Your task to perform on an android device: move an email to a new category in the gmail app Image 0: 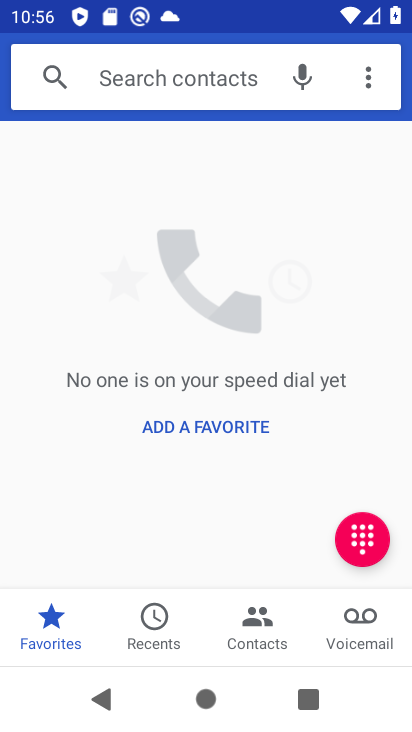
Step 0: press home button
Your task to perform on an android device: move an email to a new category in the gmail app Image 1: 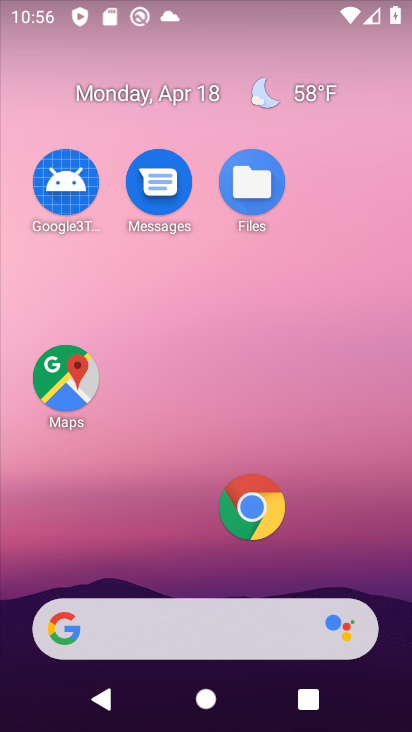
Step 1: drag from (208, 575) to (134, 21)
Your task to perform on an android device: move an email to a new category in the gmail app Image 2: 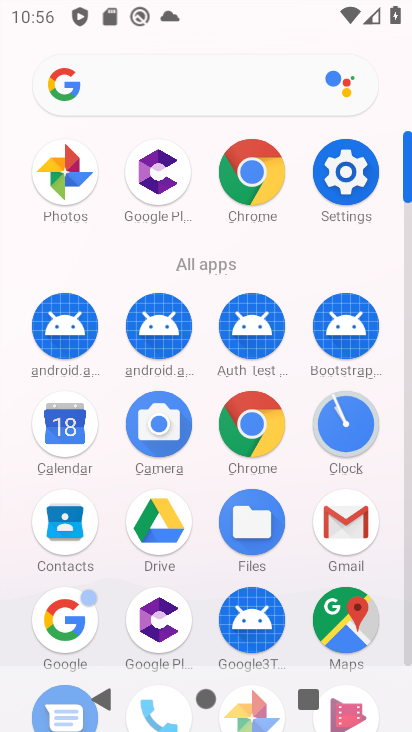
Step 2: click (345, 532)
Your task to perform on an android device: move an email to a new category in the gmail app Image 3: 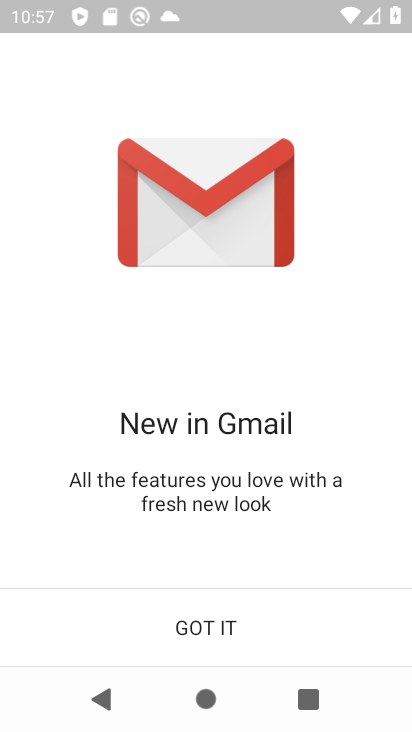
Step 3: click (193, 610)
Your task to perform on an android device: move an email to a new category in the gmail app Image 4: 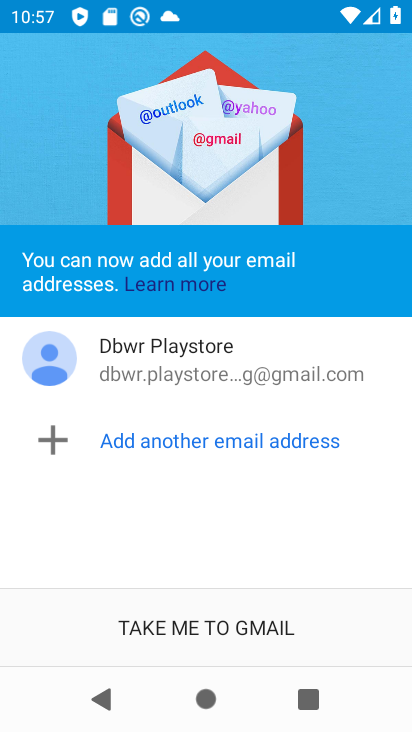
Step 4: click (198, 629)
Your task to perform on an android device: move an email to a new category in the gmail app Image 5: 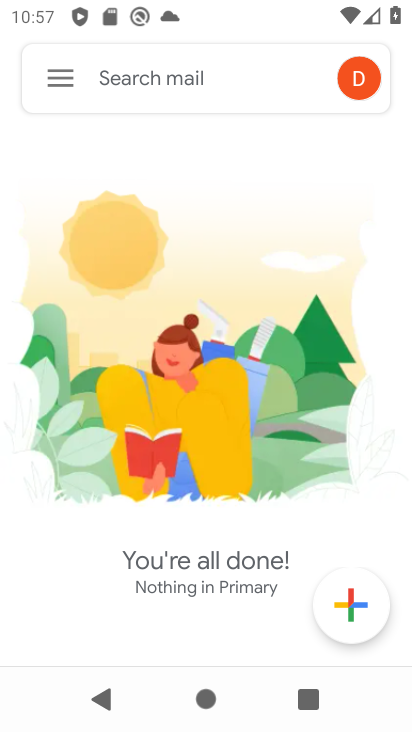
Step 5: click (59, 75)
Your task to perform on an android device: move an email to a new category in the gmail app Image 6: 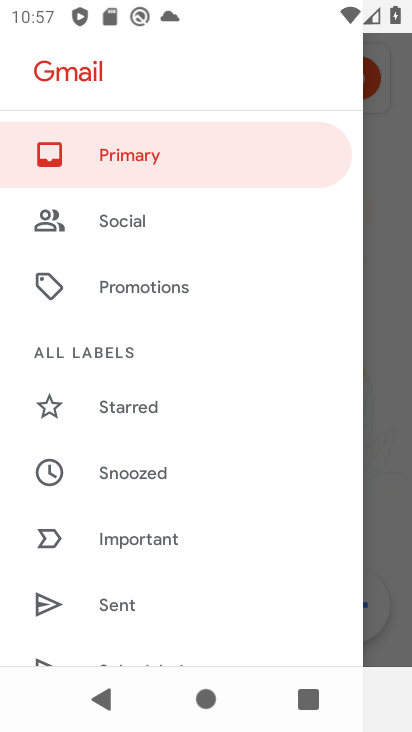
Step 6: click (133, 165)
Your task to perform on an android device: move an email to a new category in the gmail app Image 7: 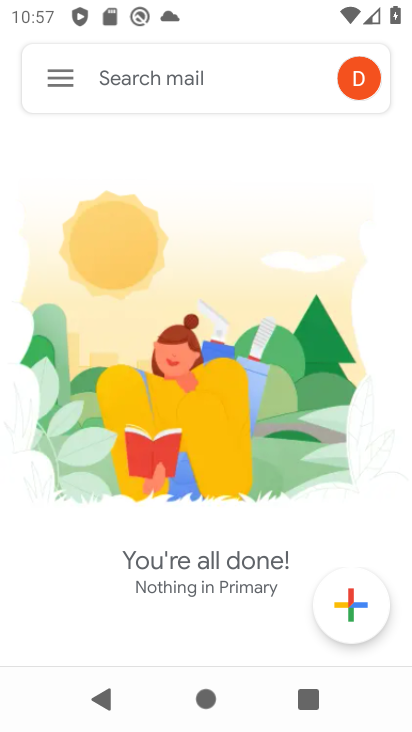
Step 7: task complete